Your task to perform on an android device: Open Google Maps Image 0: 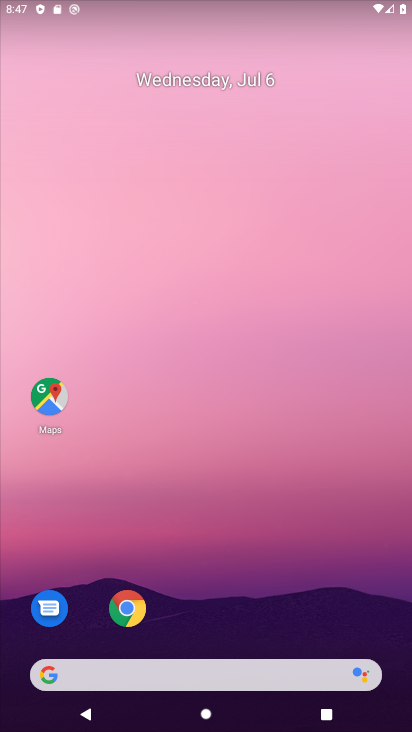
Step 0: drag from (240, 643) to (156, 129)
Your task to perform on an android device: Open Google Maps Image 1: 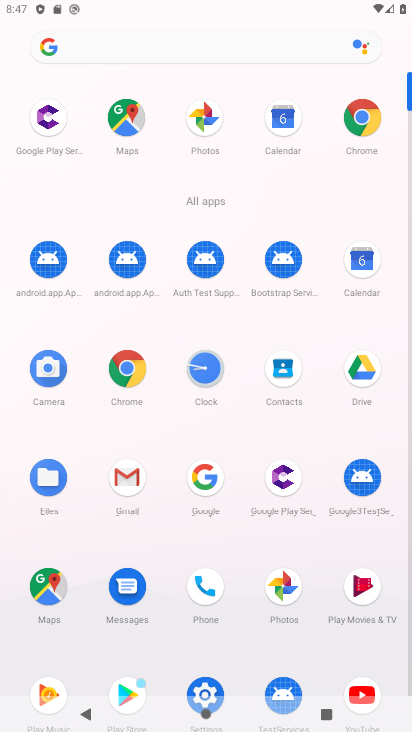
Step 1: click (134, 112)
Your task to perform on an android device: Open Google Maps Image 2: 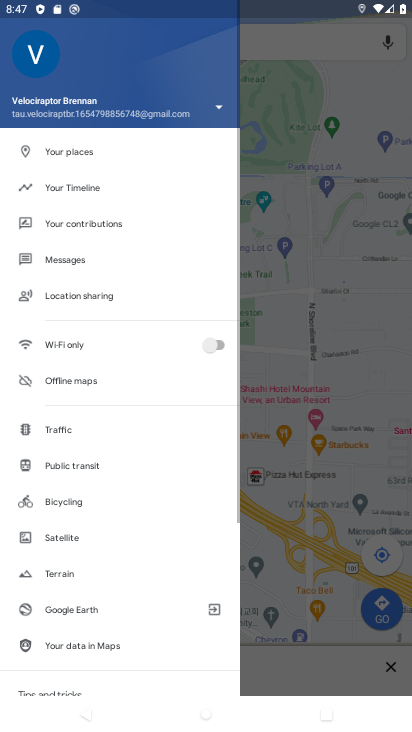
Step 2: task complete